Your task to perform on an android device: Go to internet settings Image 0: 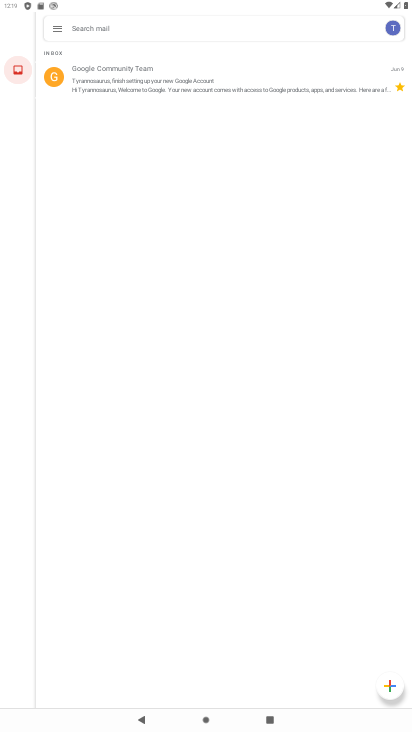
Step 0: press home button
Your task to perform on an android device: Go to internet settings Image 1: 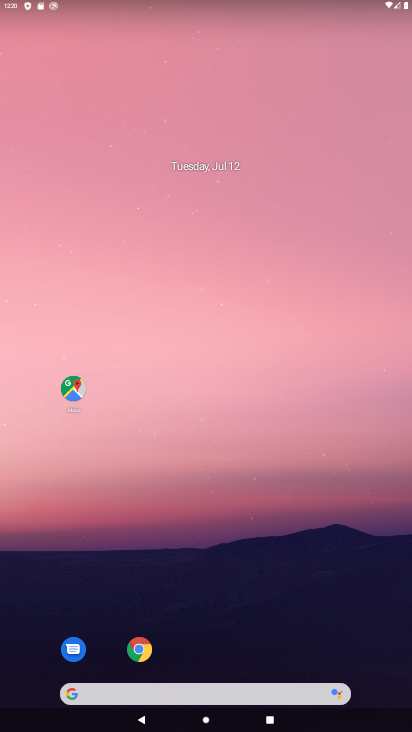
Step 1: drag from (221, 457) to (213, 178)
Your task to perform on an android device: Go to internet settings Image 2: 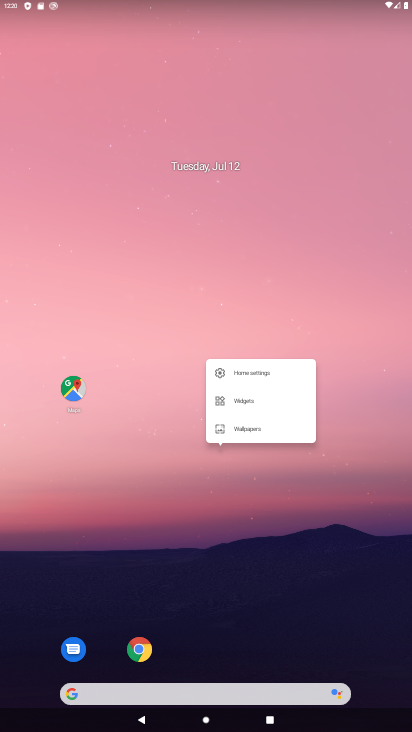
Step 2: click (139, 406)
Your task to perform on an android device: Go to internet settings Image 3: 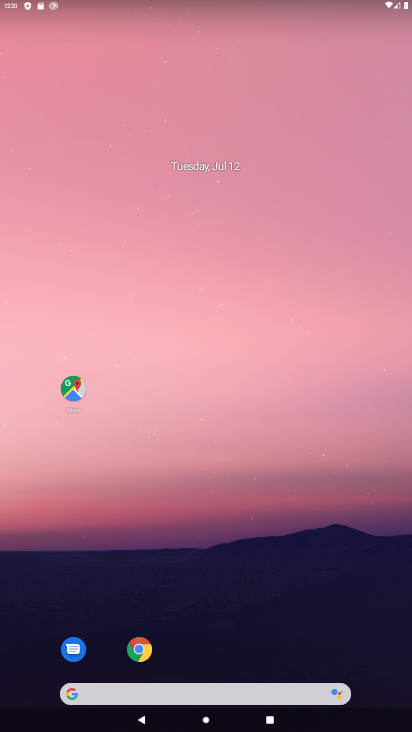
Step 3: drag from (243, 594) to (170, 50)
Your task to perform on an android device: Go to internet settings Image 4: 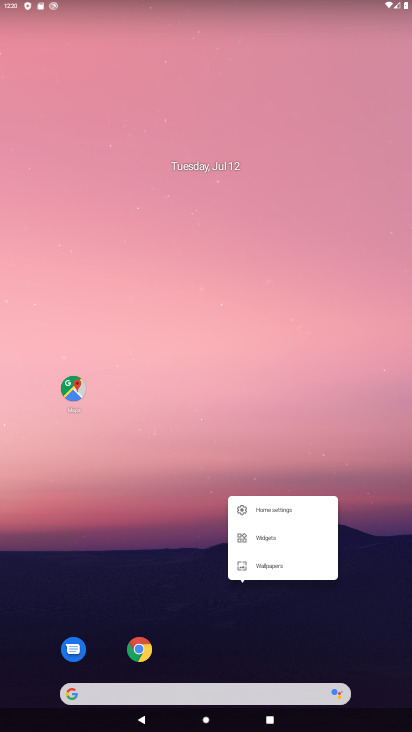
Step 4: click (241, 385)
Your task to perform on an android device: Go to internet settings Image 5: 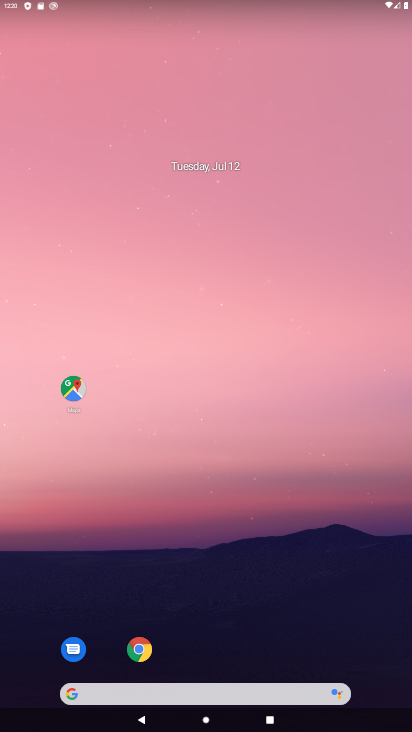
Step 5: drag from (235, 628) to (197, 15)
Your task to perform on an android device: Go to internet settings Image 6: 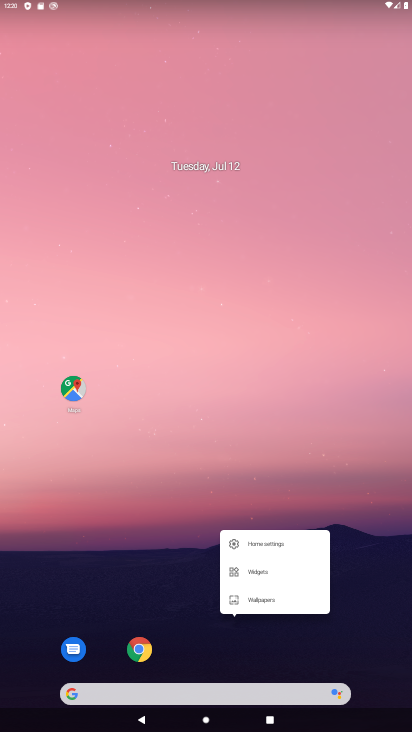
Step 6: click (195, 379)
Your task to perform on an android device: Go to internet settings Image 7: 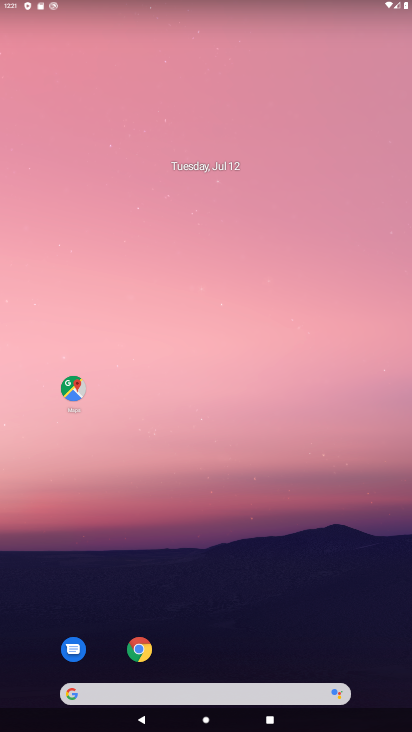
Step 7: drag from (280, 618) to (218, 65)
Your task to perform on an android device: Go to internet settings Image 8: 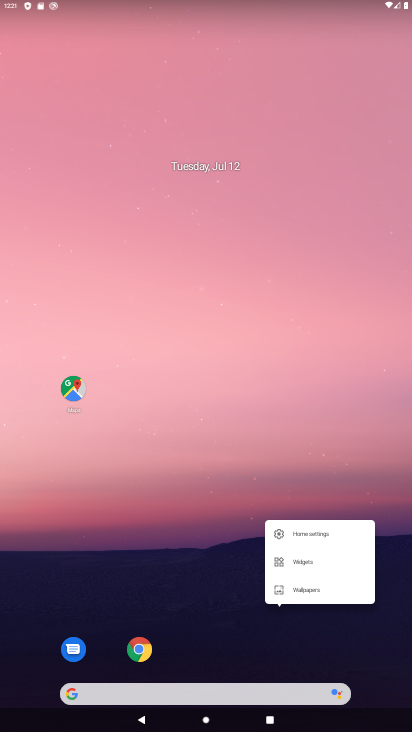
Step 8: click (220, 374)
Your task to perform on an android device: Go to internet settings Image 9: 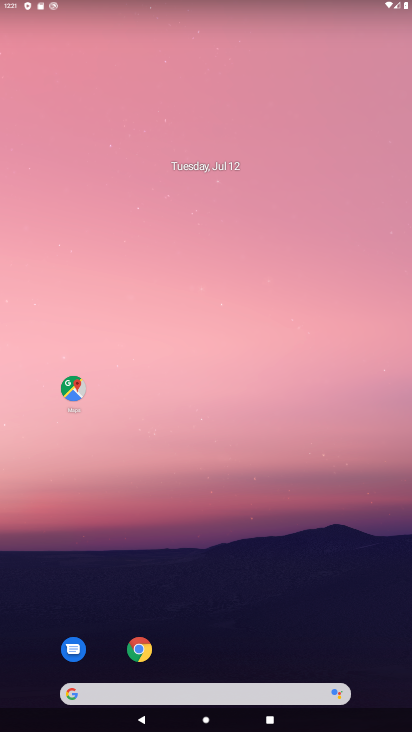
Step 9: drag from (211, 599) to (229, 25)
Your task to perform on an android device: Go to internet settings Image 10: 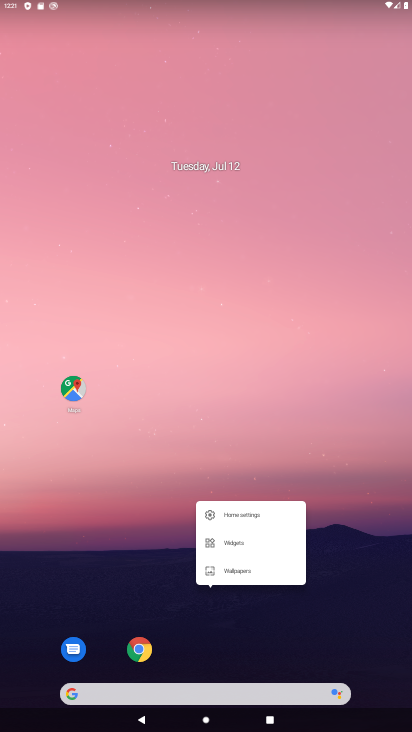
Step 10: click (317, 399)
Your task to perform on an android device: Go to internet settings Image 11: 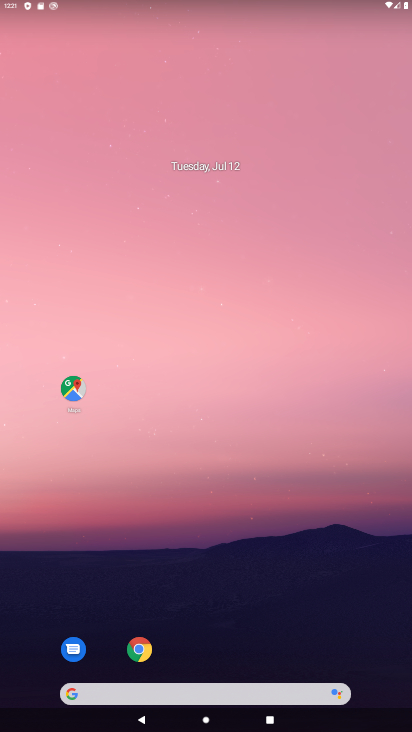
Step 11: drag from (240, 594) to (230, 31)
Your task to perform on an android device: Go to internet settings Image 12: 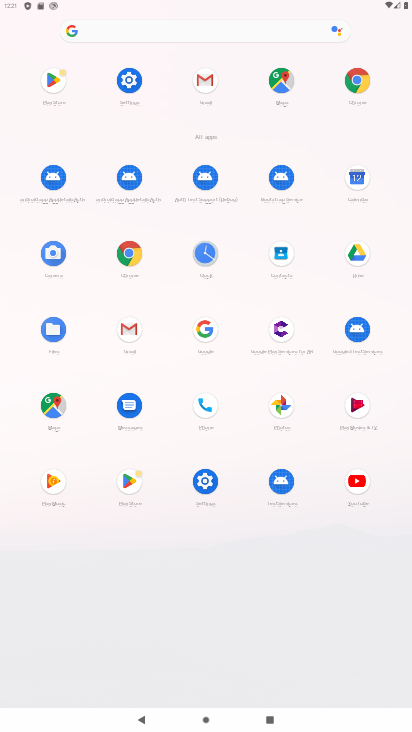
Step 12: click (140, 83)
Your task to perform on an android device: Go to internet settings Image 13: 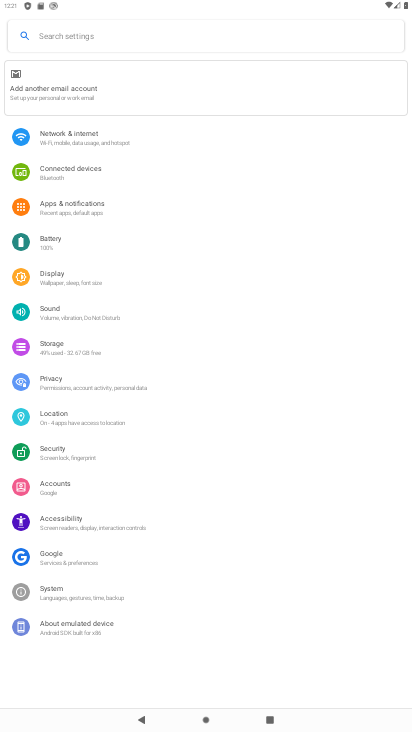
Step 13: click (172, 150)
Your task to perform on an android device: Go to internet settings Image 14: 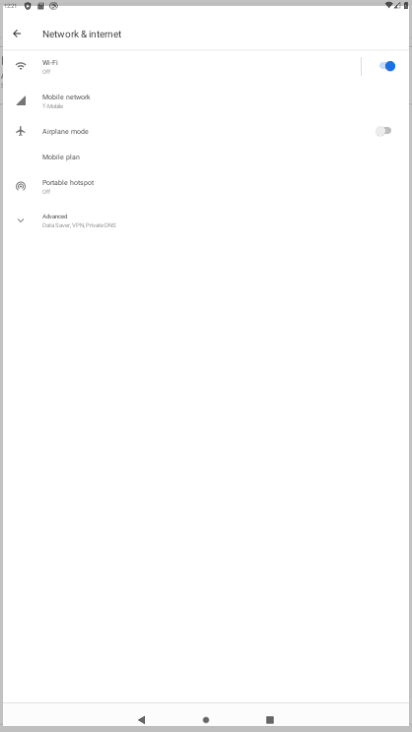
Step 14: task complete